Your task to perform on an android device: move an email to a new category in the gmail app Image 0: 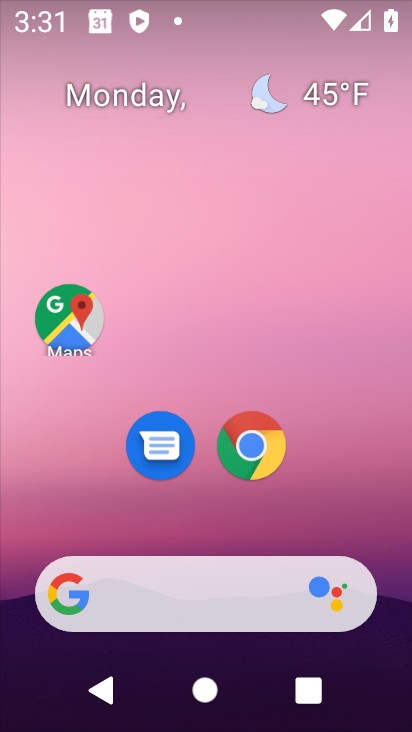
Step 0: drag from (337, 524) to (287, 0)
Your task to perform on an android device: move an email to a new category in the gmail app Image 1: 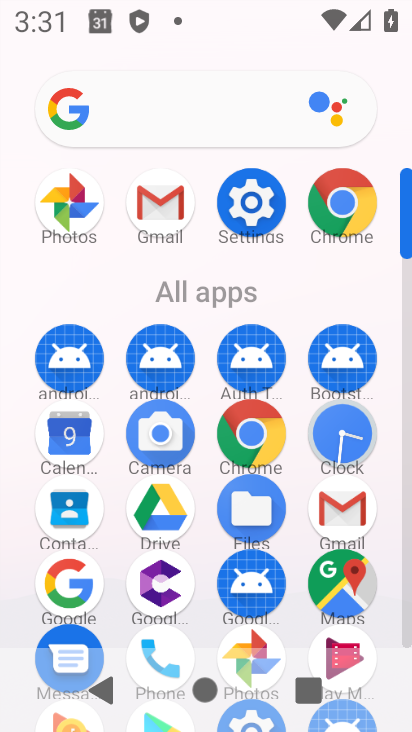
Step 1: click (326, 523)
Your task to perform on an android device: move an email to a new category in the gmail app Image 2: 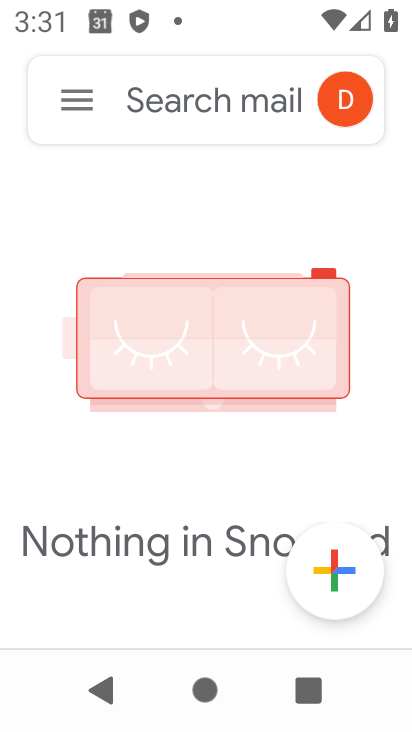
Step 2: click (72, 112)
Your task to perform on an android device: move an email to a new category in the gmail app Image 3: 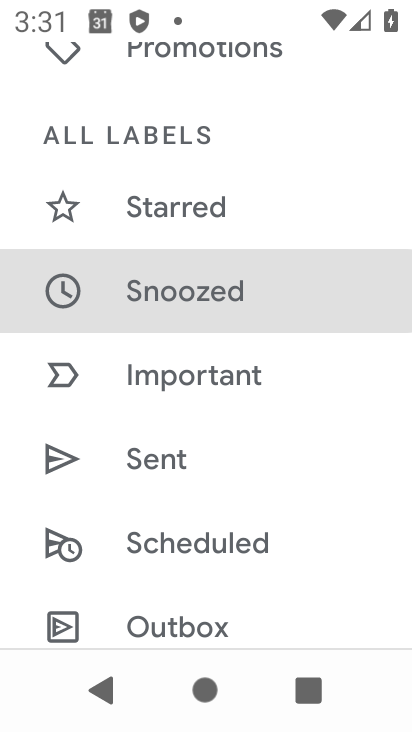
Step 3: drag from (195, 605) to (214, 171)
Your task to perform on an android device: move an email to a new category in the gmail app Image 4: 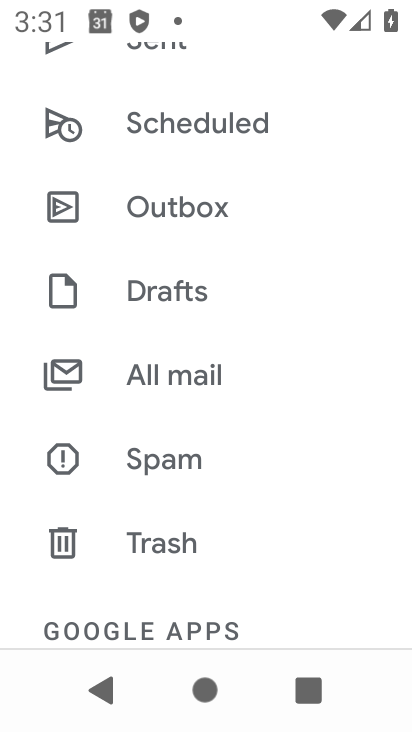
Step 4: click (190, 355)
Your task to perform on an android device: move an email to a new category in the gmail app Image 5: 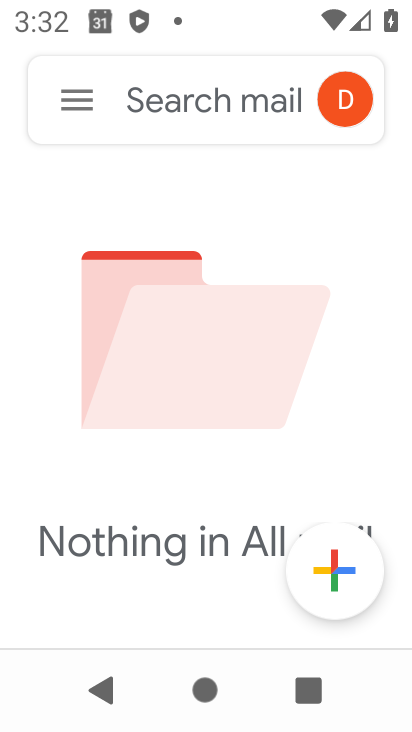
Step 5: task complete